Your task to perform on an android device: see tabs open on other devices in the chrome app Image 0: 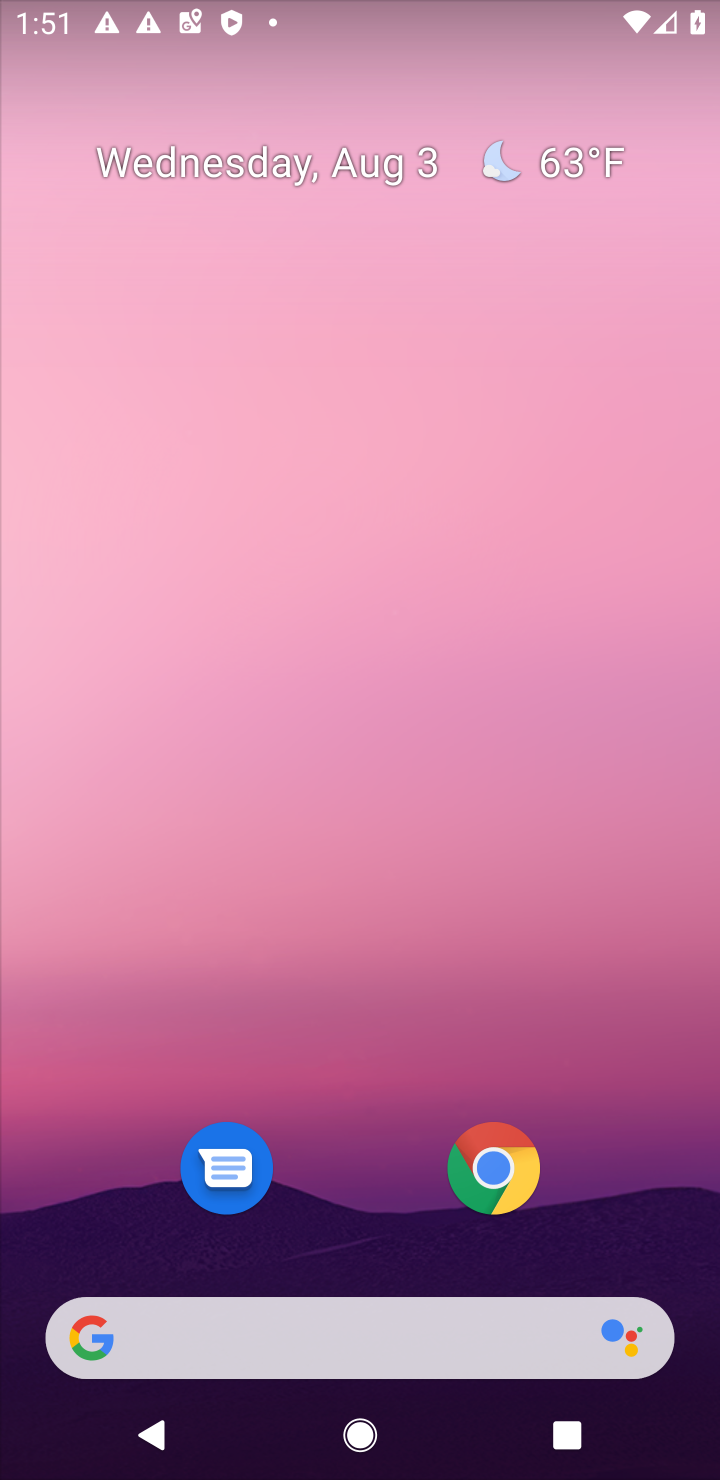
Step 0: click (491, 1171)
Your task to perform on an android device: see tabs open on other devices in the chrome app Image 1: 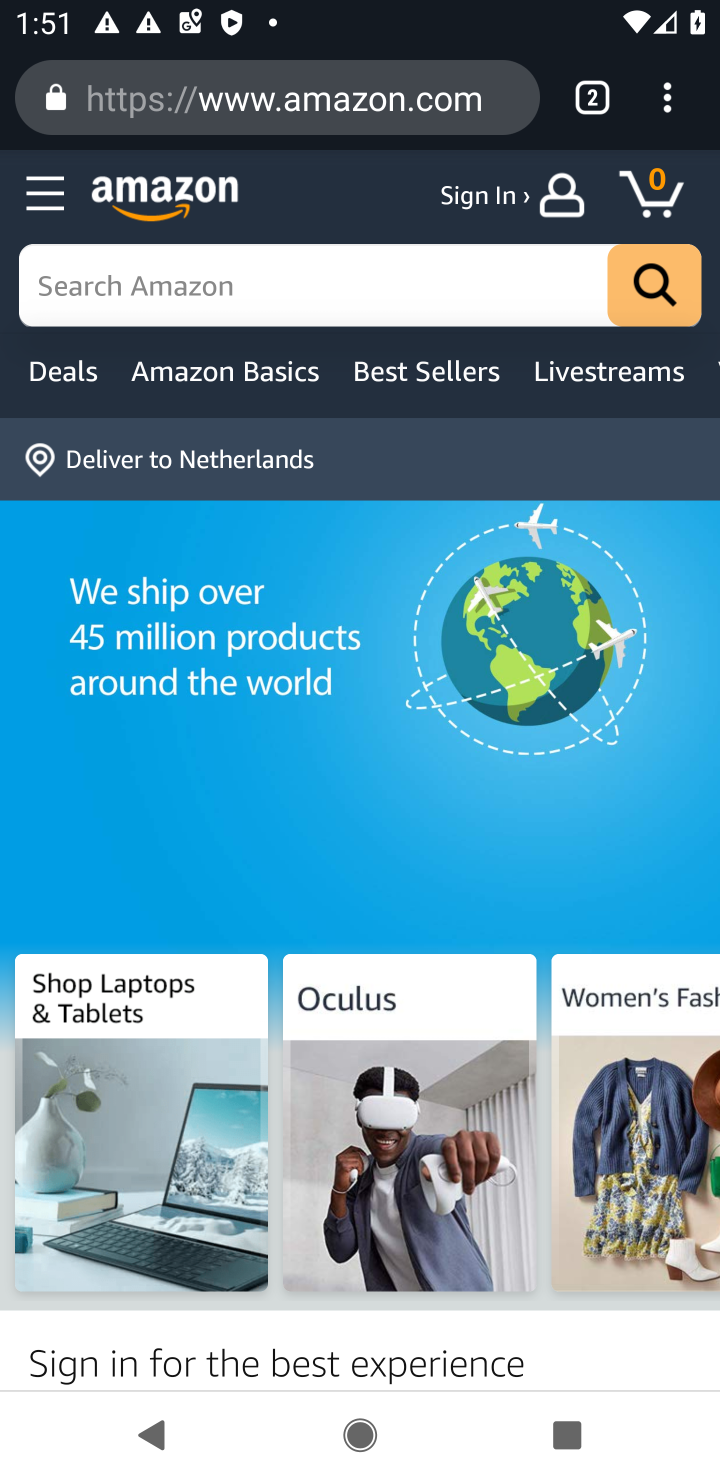
Step 1: click (664, 117)
Your task to perform on an android device: see tabs open on other devices in the chrome app Image 2: 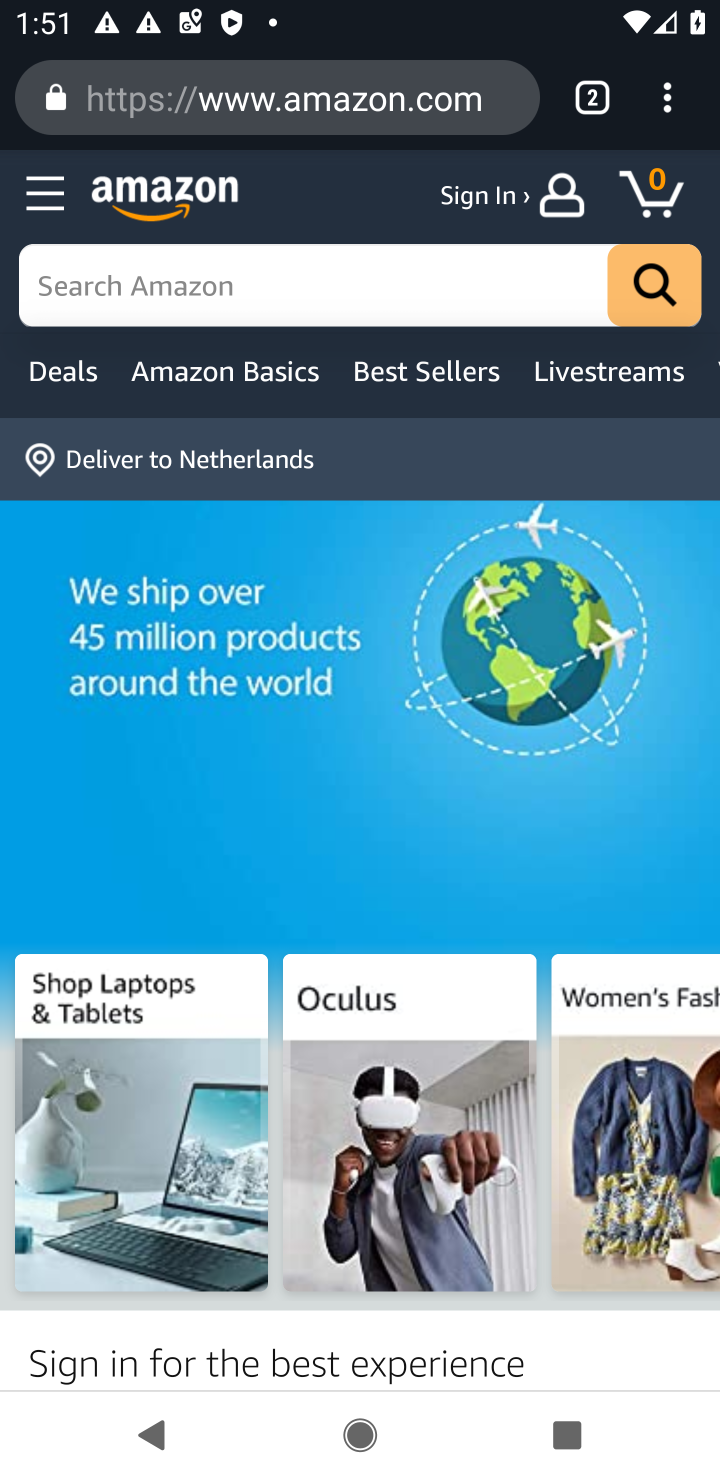
Step 2: click (667, 125)
Your task to perform on an android device: see tabs open on other devices in the chrome app Image 3: 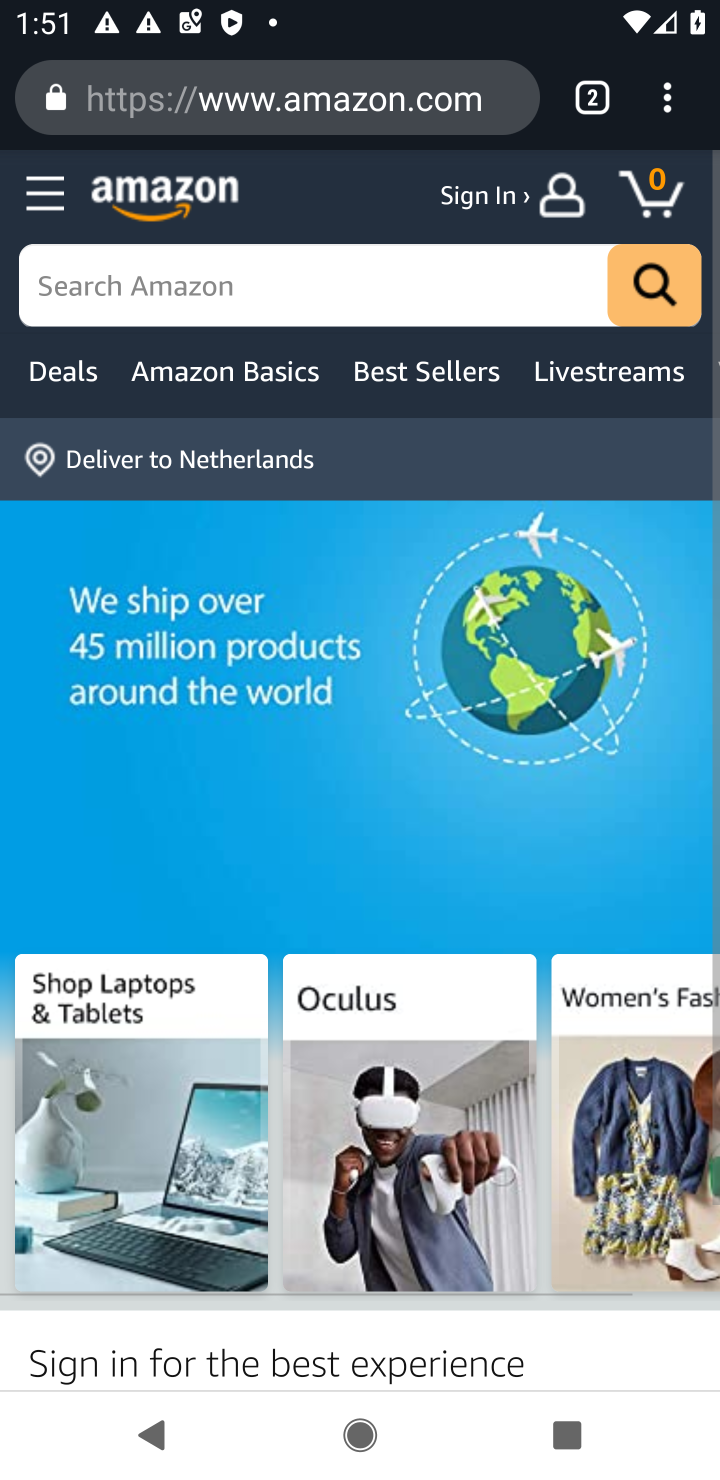
Step 3: click (656, 121)
Your task to perform on an android device: see tabs open on other devices in the chrome app Image 4: 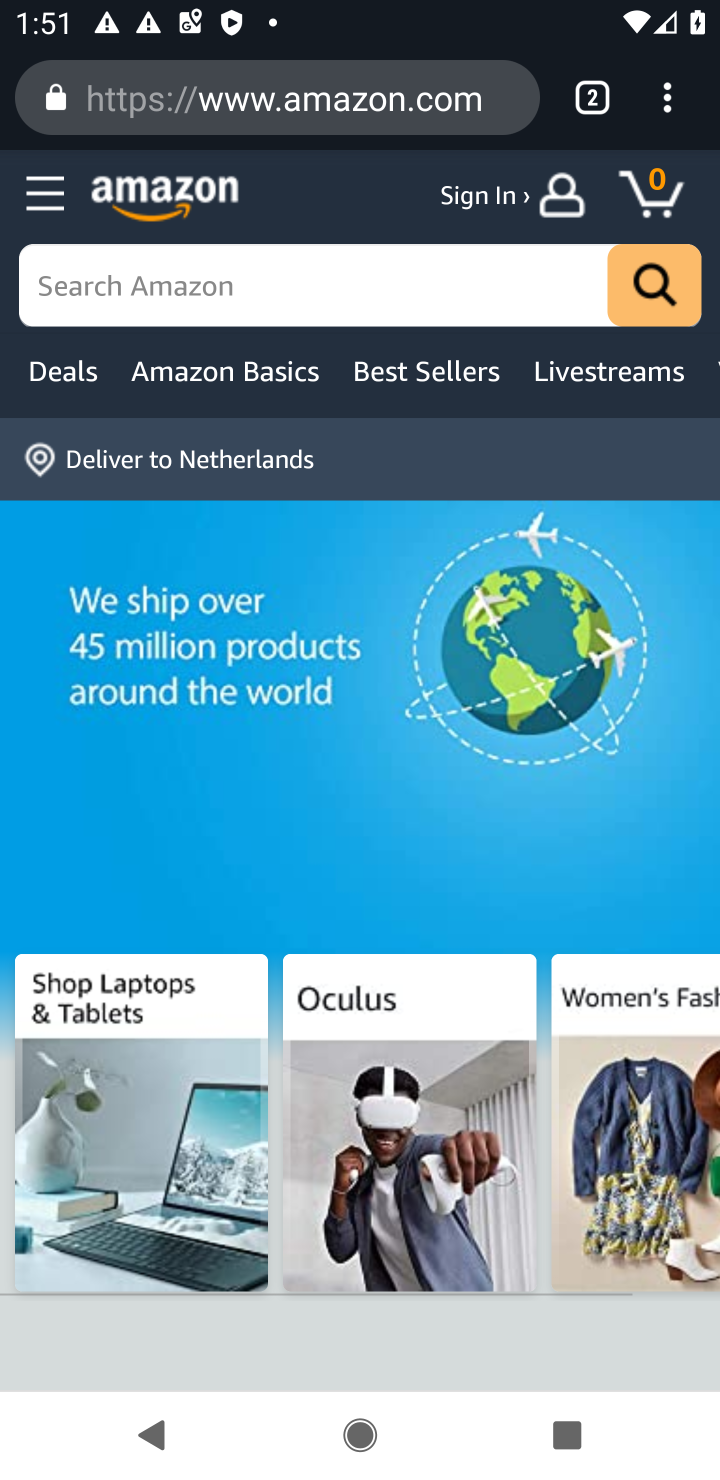
Step 4: click (672, 115)
Your task to perform on an android device: see tabs open on other devices in the chrome app Image 5: 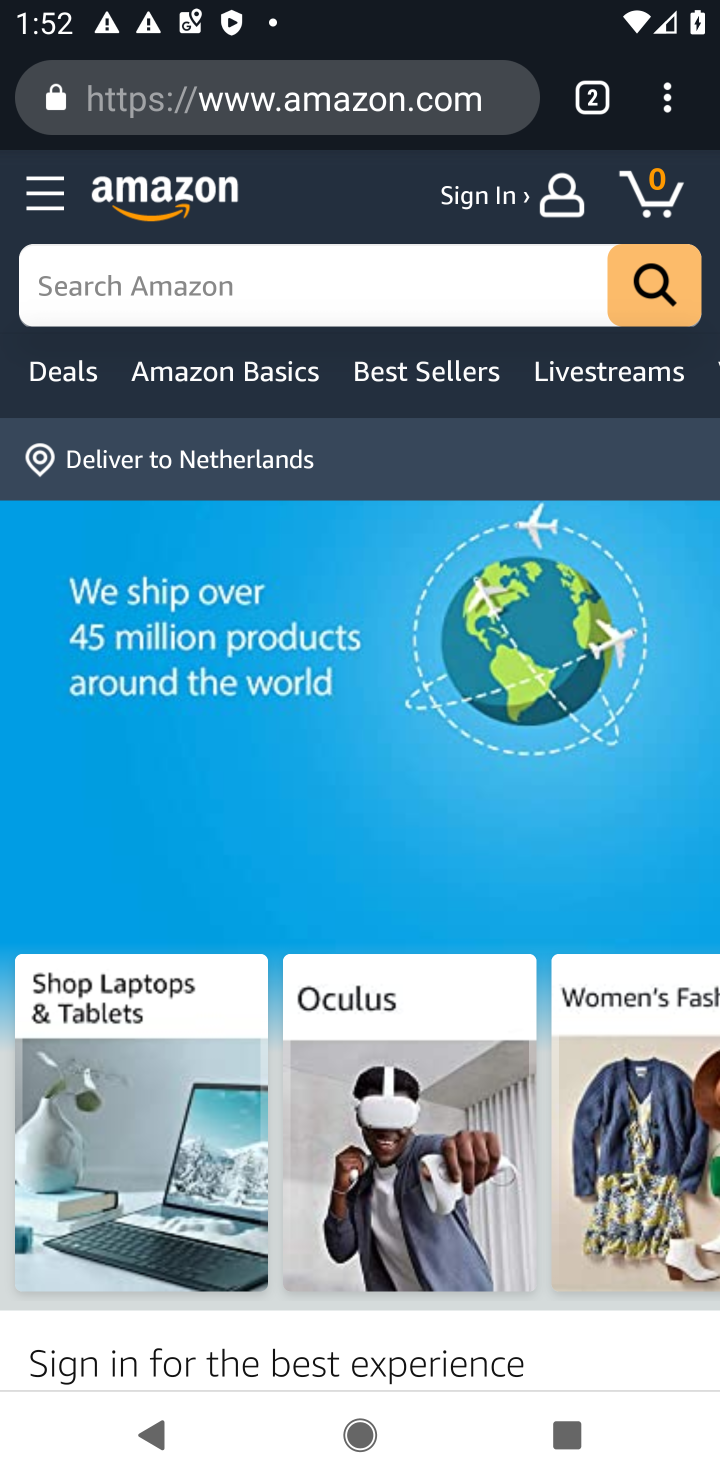
Step 5: click (680, 111)
Your task to perform on an android device: see tabs open on other devices in the chrome app Image 6: 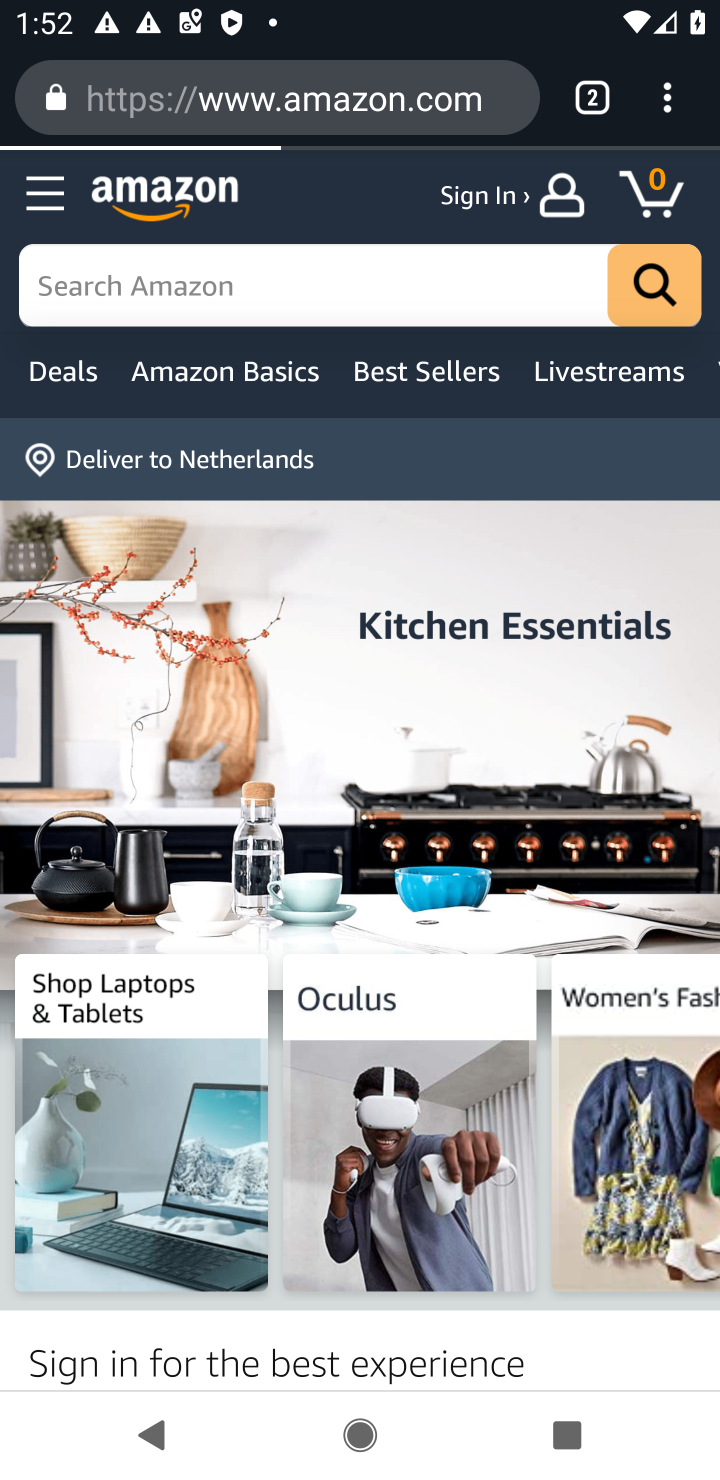
Step 6: click (647, 108)
Your task to perform on an android device: see tabs open on other devices in the chrome app Image 7: 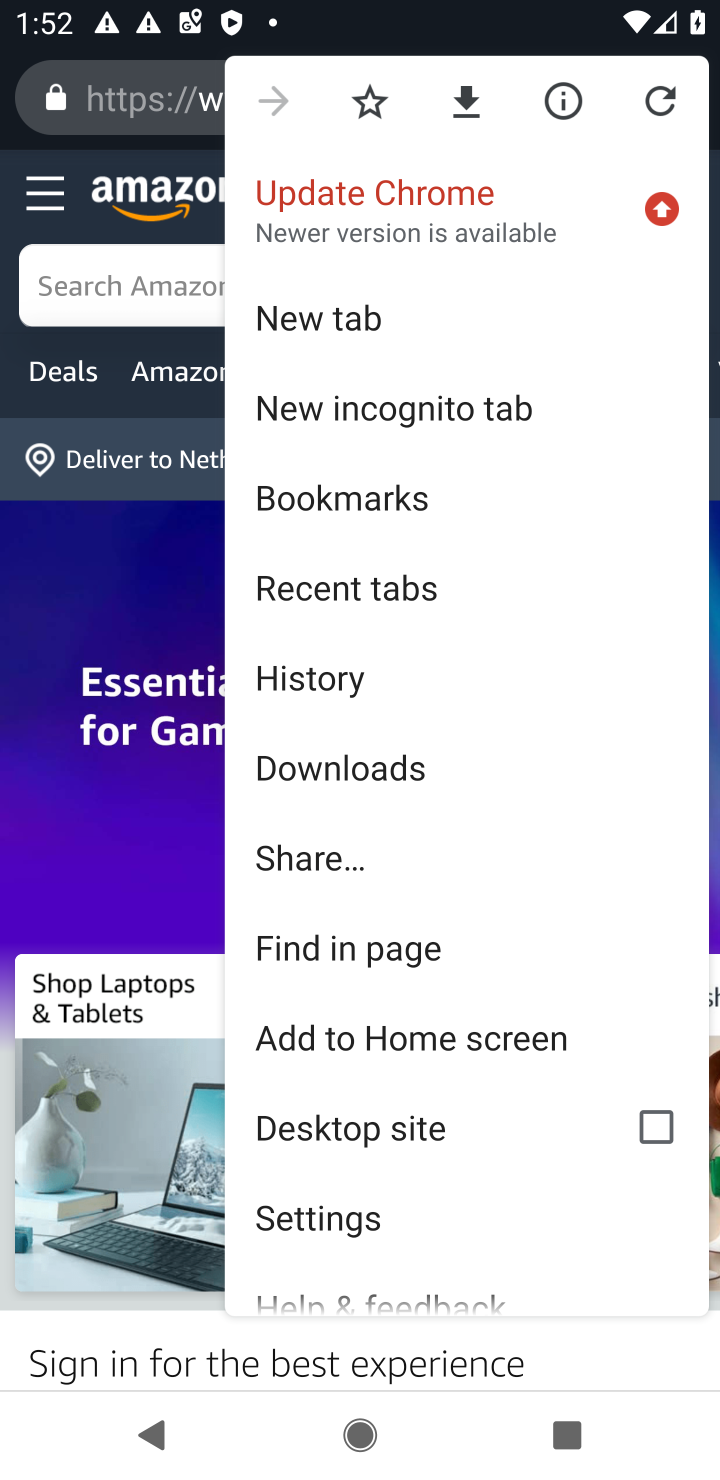
Step 7: click (350, 595)
Your task to perform on an android device: see tabs open on other devices in the chrome app Image 8: 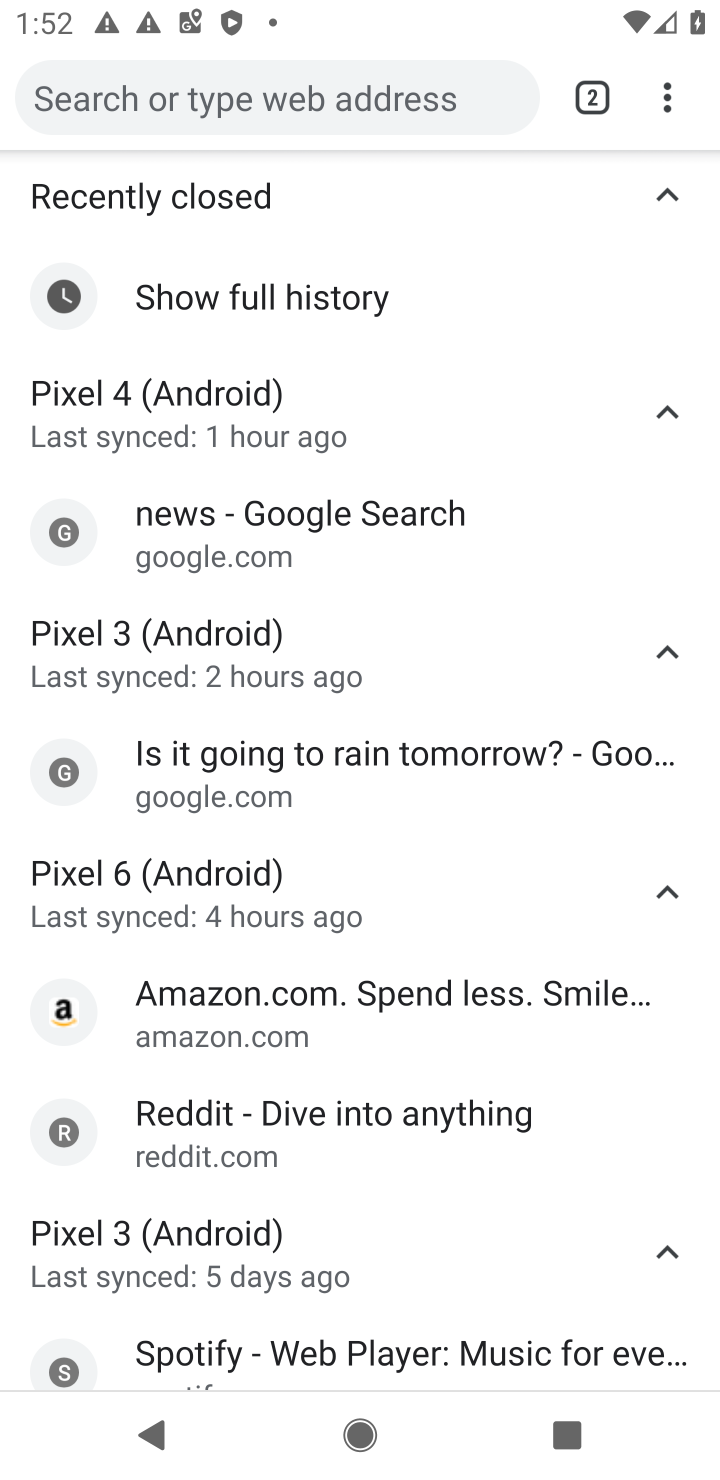
Step 8: task complete